Your task to perform on an android device: Is it going to rain today? Image 0: 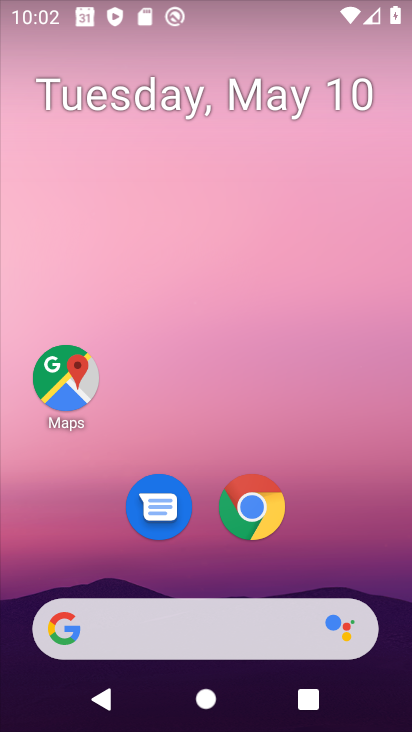
Step 0: drag from (280, 566) to (293, 287)
Your task to perform on an android device: Is it going to rain today? Image 1: 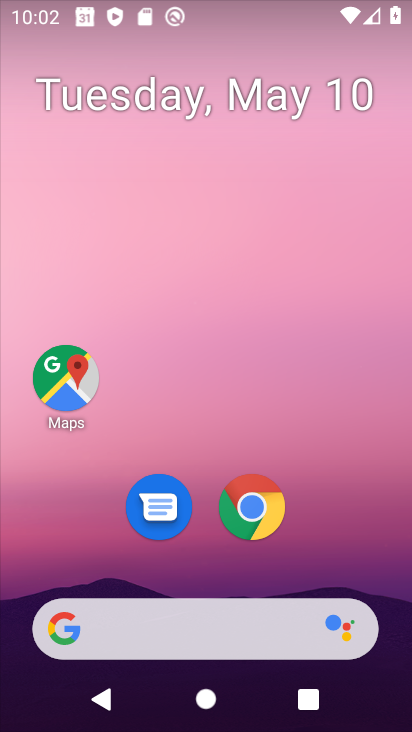
Step 1: drag from (264, 579) to (294, 161)
Your task to perform on an android device: Is it going to rain today? Image 2: 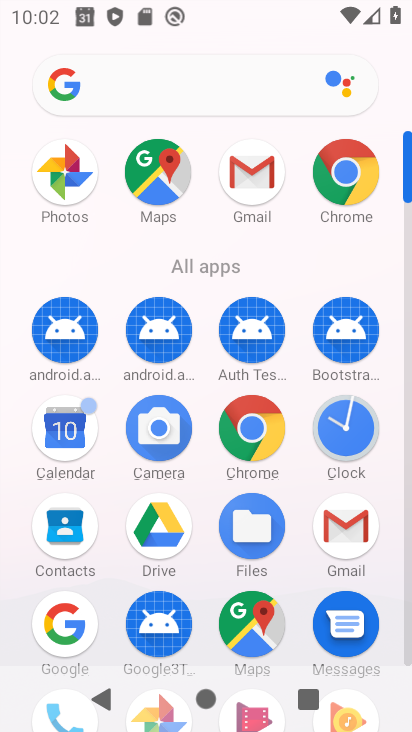
Step 2: click (63, 608)
Your task to perform on an android device: Is it going to rain today? Image 3: 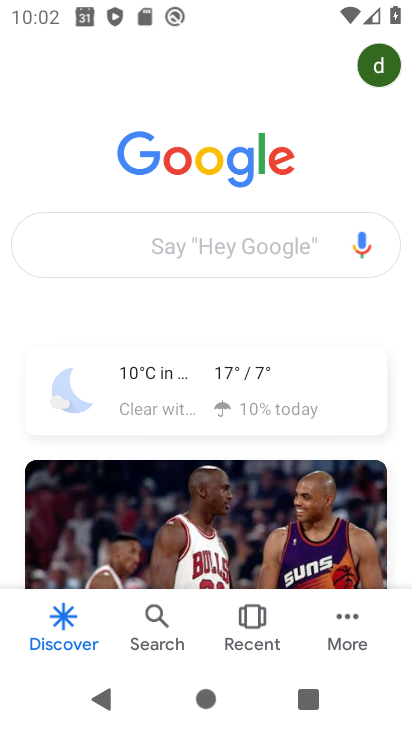
Step 3: click (123, 390)
Your task to perform on an android device: Is it going to rain today? Image 4: 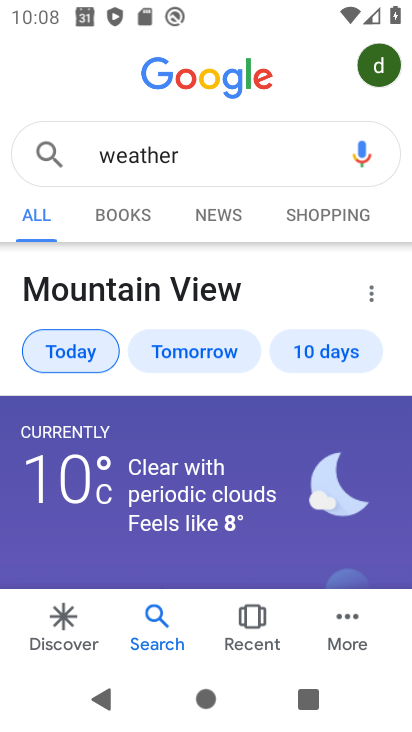
Step 4: task complete